Your task to perform on an android device: Add sony triple a to the cart on target, then select checkout. Image 0: 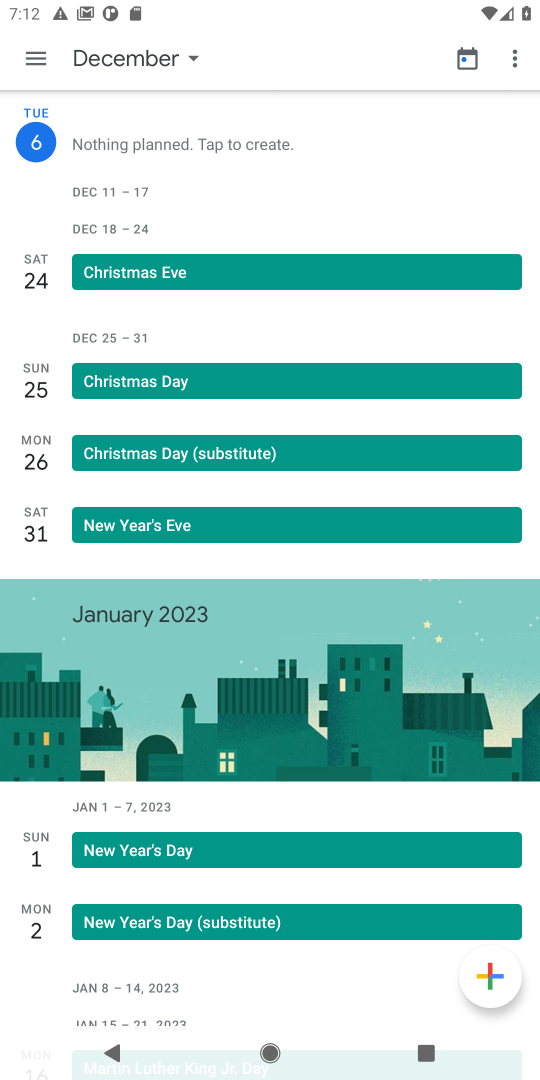
Step 0: press home button
Your task to perform on an android device: Add sony triple a to the cart on target, then select checkout. Image 1: 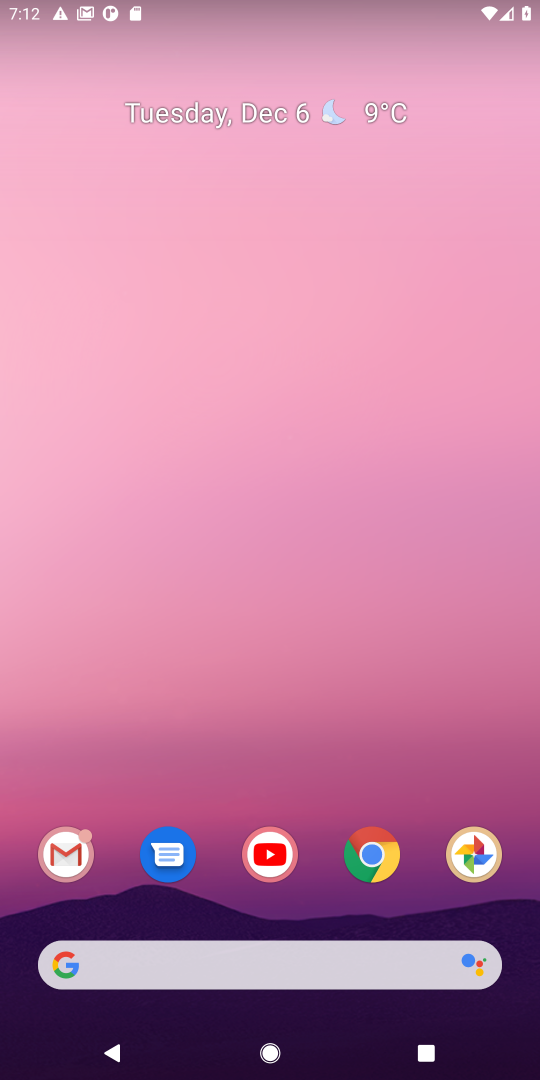
Step 1: click (369, 871)
Your task to perform on an android device: Add sony triple a to the cart on target, then select checkout. Image 2: 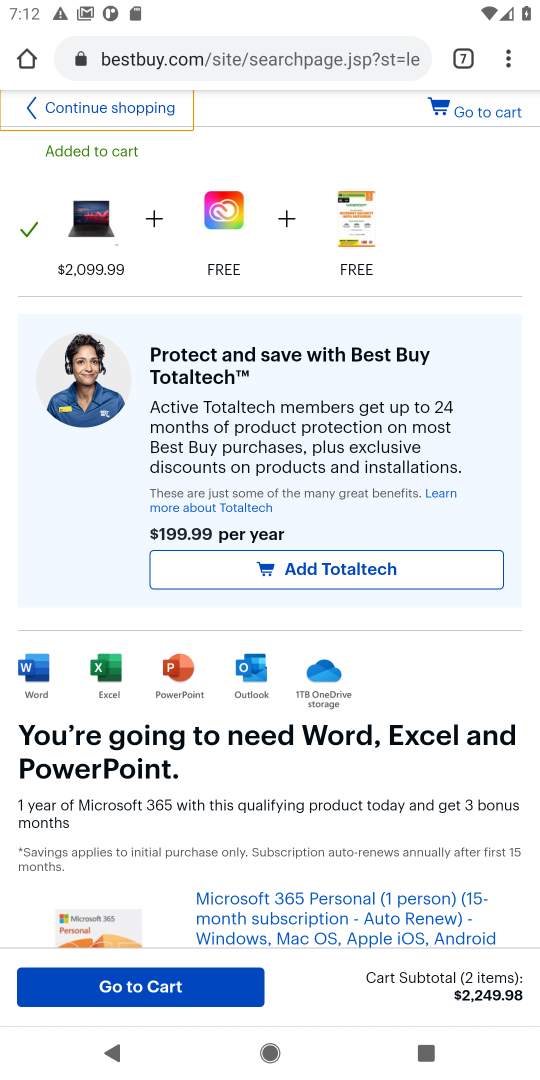
Step 2: click (455, 63)
Your task to perform on an android device: Add sony triple a to the cart on target, then select checkout. Image 3: 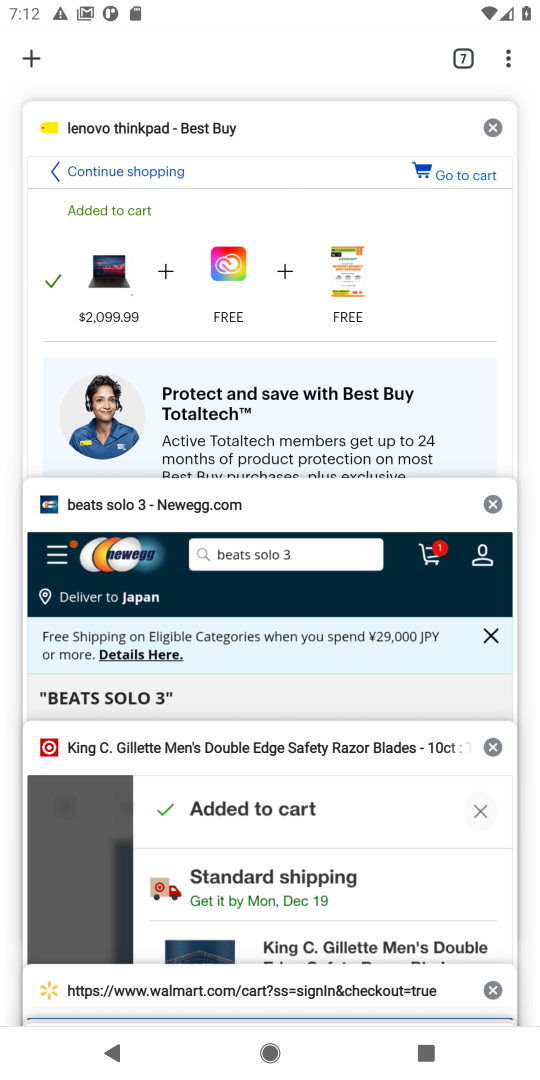
Step 3: click (294, 833)
Your task to perform on an android device: Add sony triple a to the cart on target, then select checkout. Image 4: 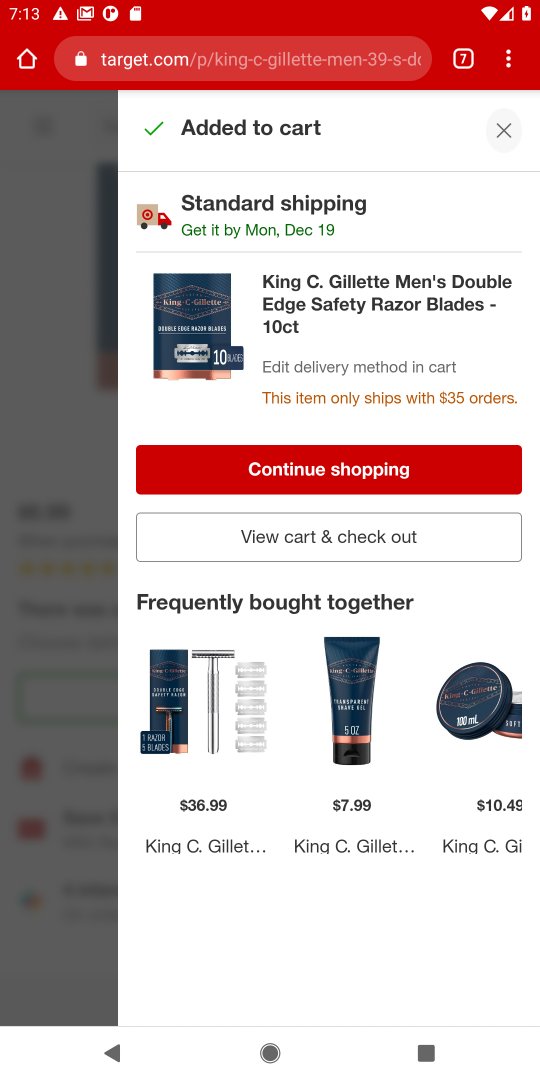
Step 4: click (510, 131)
Your task to perform on an android device: Add sony triple a to the cart on target, then select checkout. Image 5: 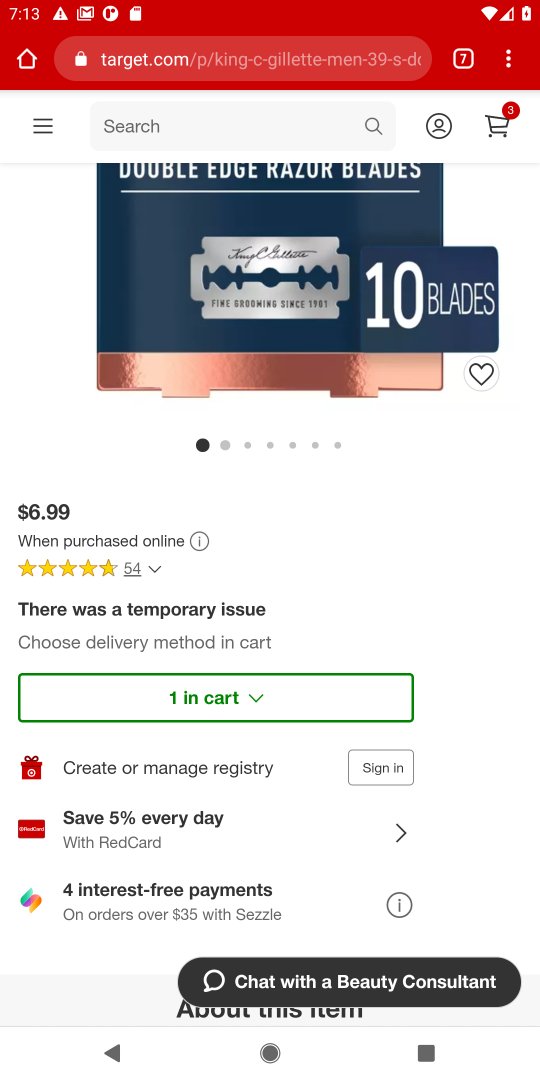
Step 5: click (178, 119)
Your task to perform on an android device: Add sony triple a to the cart on target, then select checkout. Image 6: 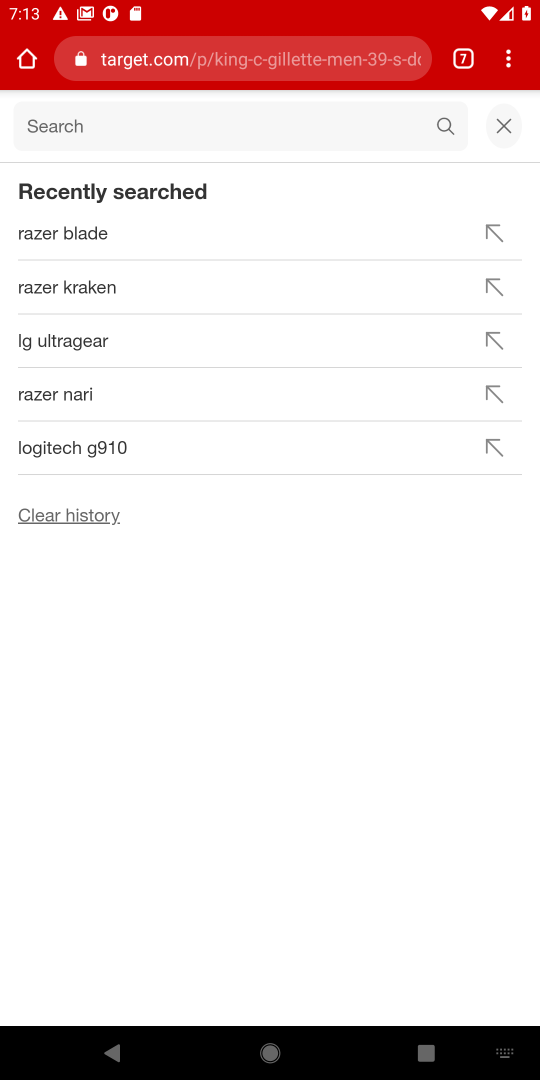
Step 6: type "sony triple a"
Your task to perform on an android device: Add sony triple a to the cart on target, then select checkout. Image 7: 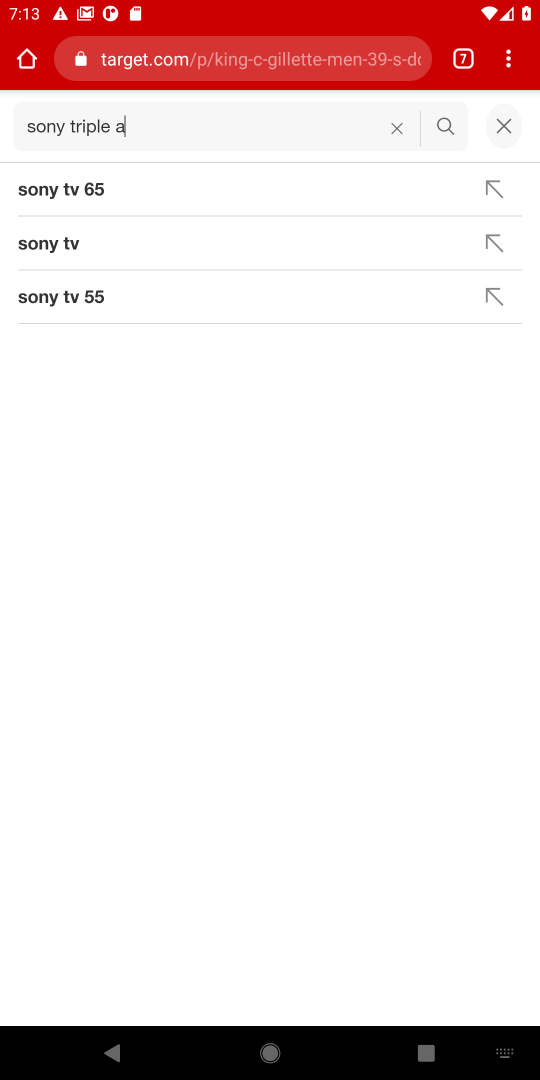
Step 7: click (447, 131)
Your task to perform on an android device: Add sony triple a to the cart on target, then select checkout. Image 8: 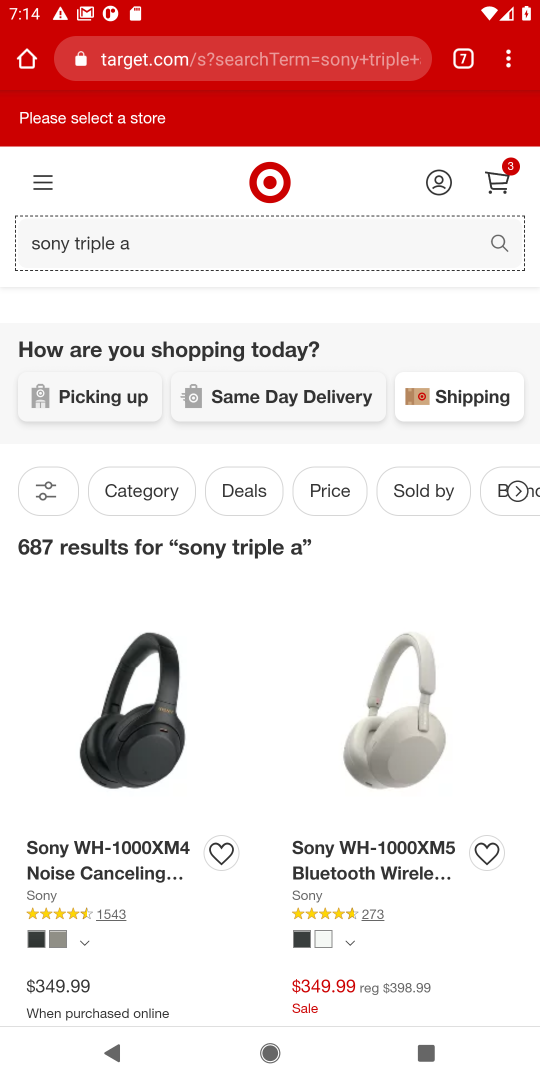
Step 8: click (164, 233)
Your task to perform on an android device: Add sony triple a to the cart on target, then select checkout. Image 9: 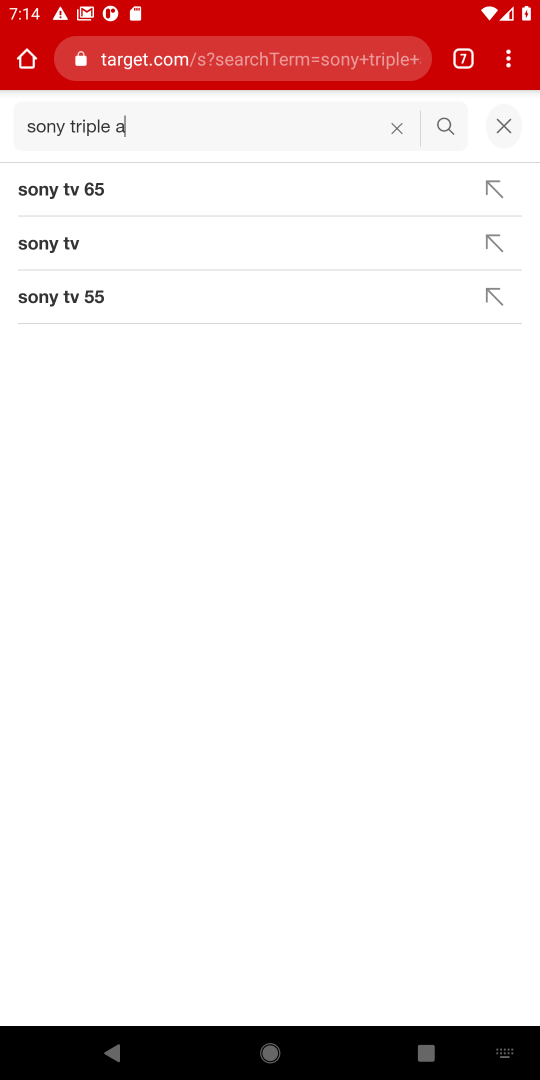
Step 9: type " battery"
Your task to perform on an android device: Add sony triple a to the cart on target, then select checkout. Image 10: 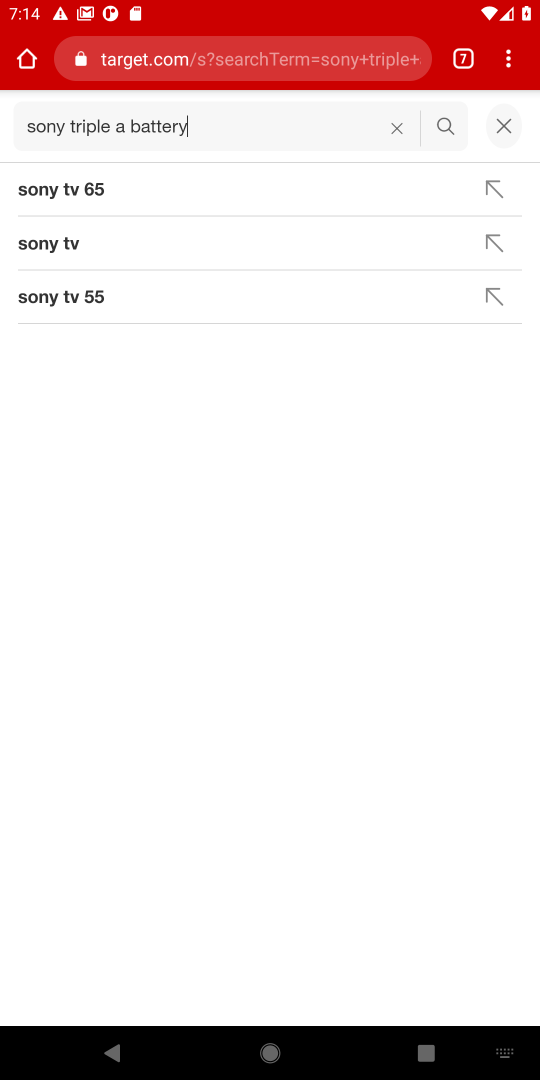
Step 10: click (447, 133)
Your task to perform on an android device: Add sony triple a to the cart on target, then select checkout. Image 11: 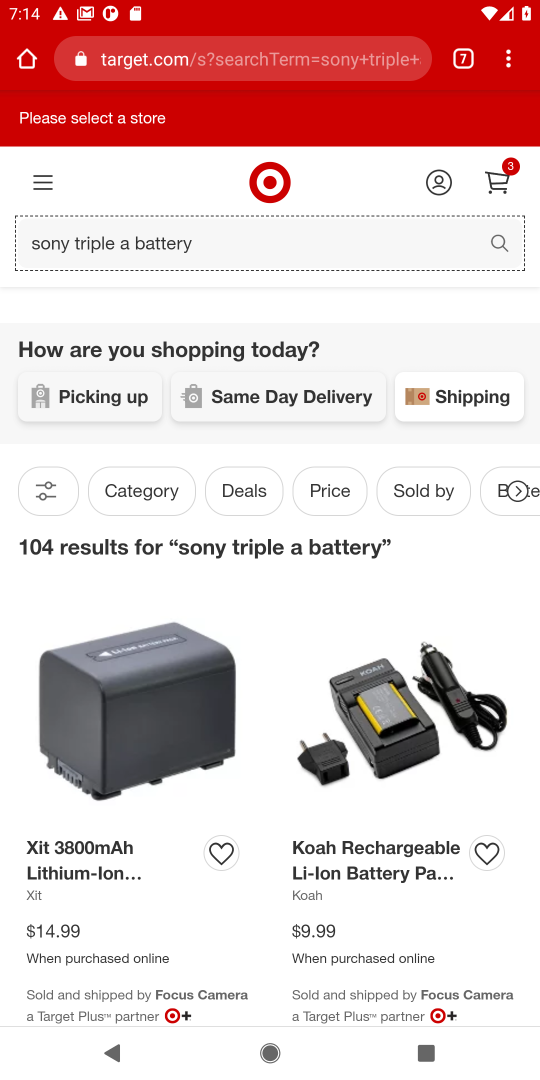
Step 11: task complete